Your task to perform on an android device: find which apps use the phone's location Image 0: 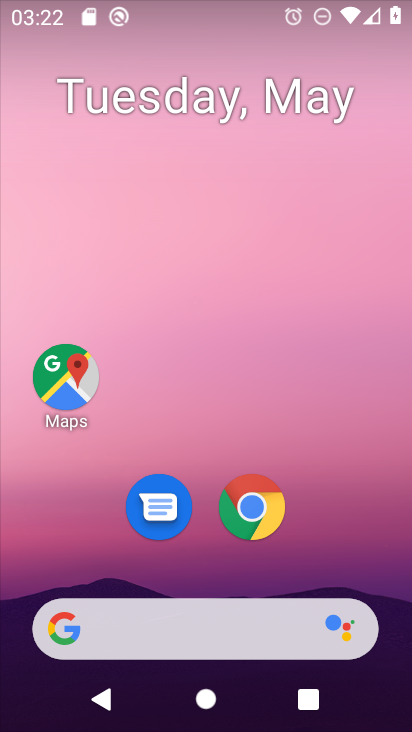
Step 0: drag from (207, 588) to (233, 171)
Your task to perform on an android device: find which apps use the phone's location Image 1: 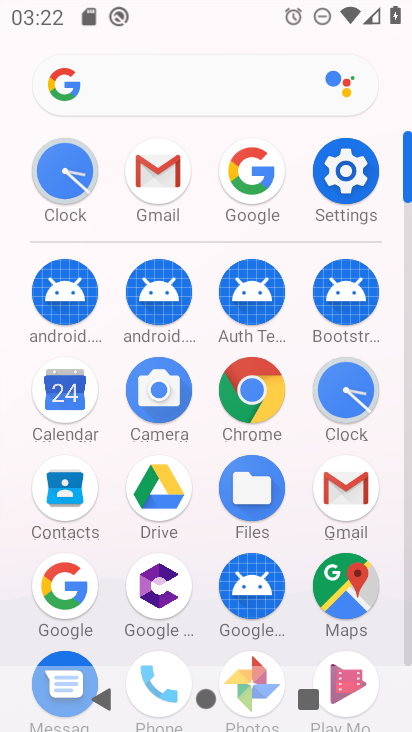
Step 1: click (327, 184)
Your task to perform on an android device: find which apps use the phone's location Image 2: 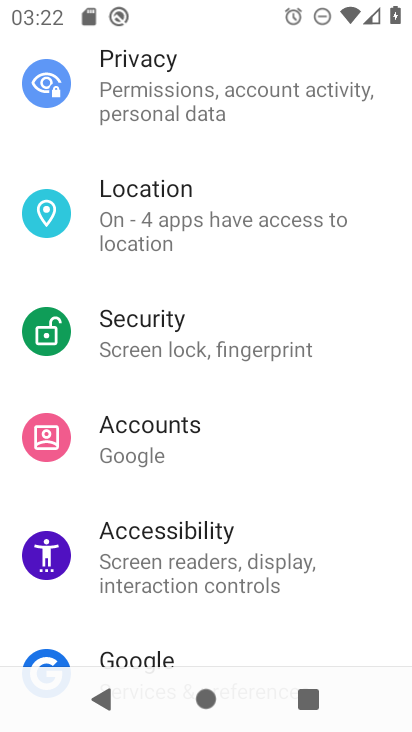
Step 2: drag from (200, 496) to (209, 463)
Your task to perform on an android device: find which apps use the phone's location Image 3: 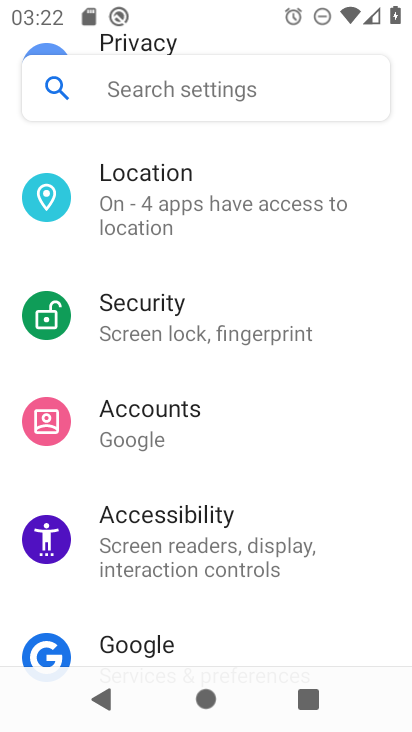
Step 3: click (204, 236)
Your task to perform on an android device: find which apps use the phone's location Image 4: 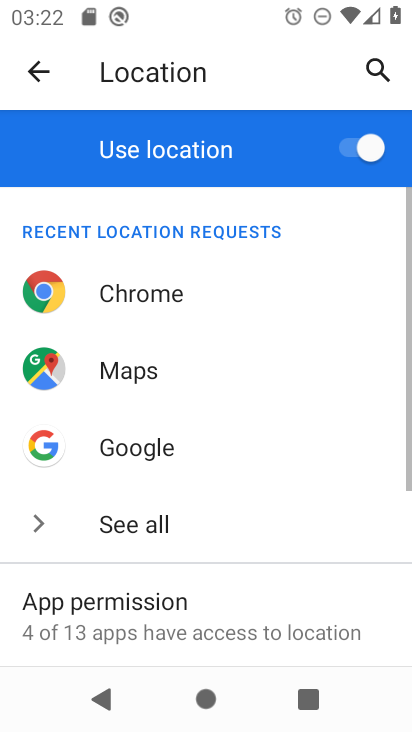
Step 4: drag from (240, 542) to (242, 351)
Your task to perform on an android device: find which apps use the phone's location Image 5: 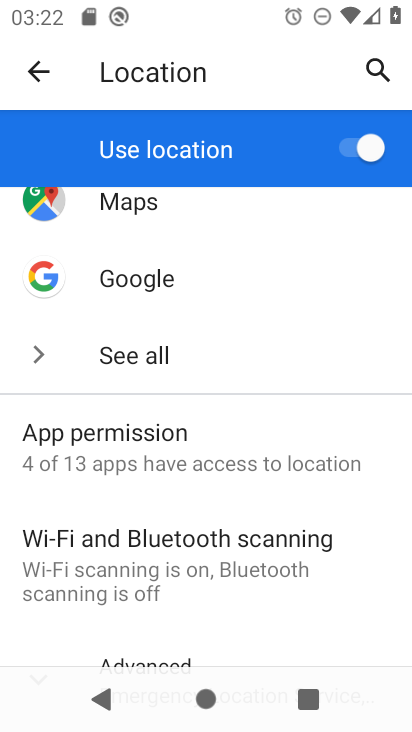
Step 5: click (221, 431)
Your task to perform on an android device: find which apps use the phone's location Image 6: 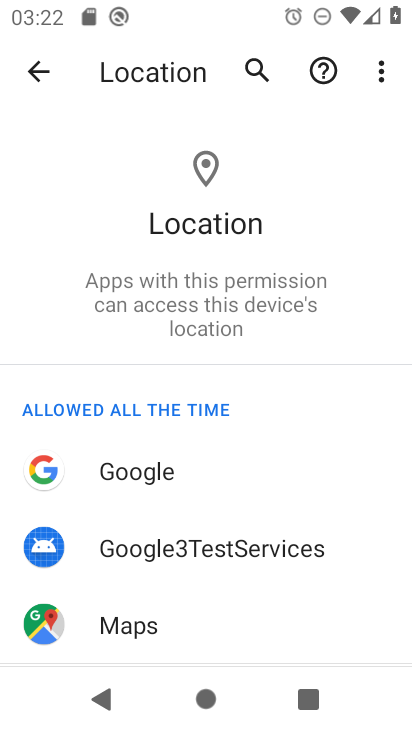
Step 6: task complete